Your task to perform on an android device: check data usage Image 0: 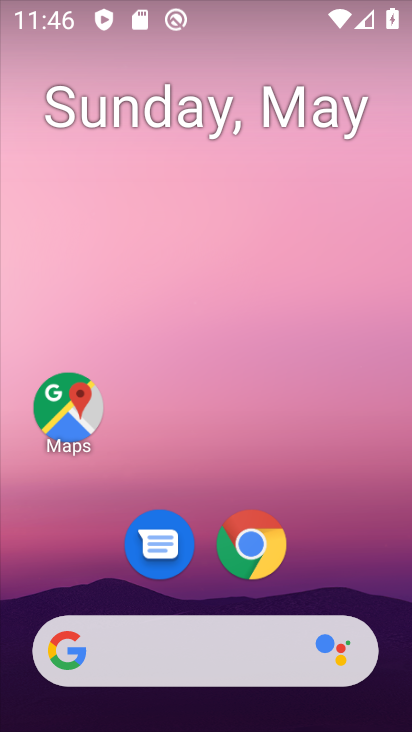
Step 0: drag from (332, 608) to (334, 15)
Your task to perform on an android device: check data usage Image 1: 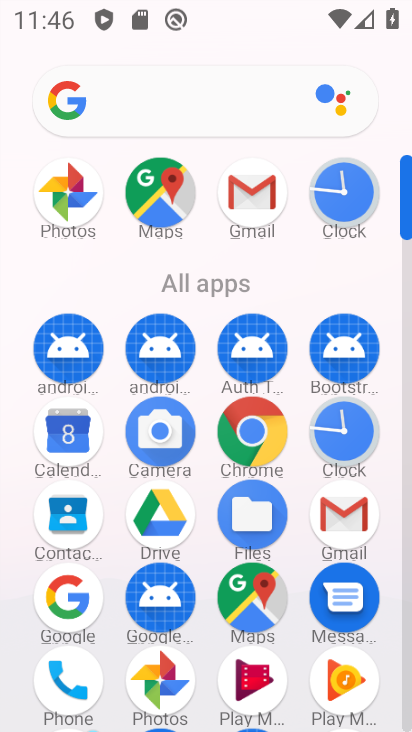
Step 1: drag from (213, 635) to (199, 249)
Your task to perform on an android device: check data usage Image 2: 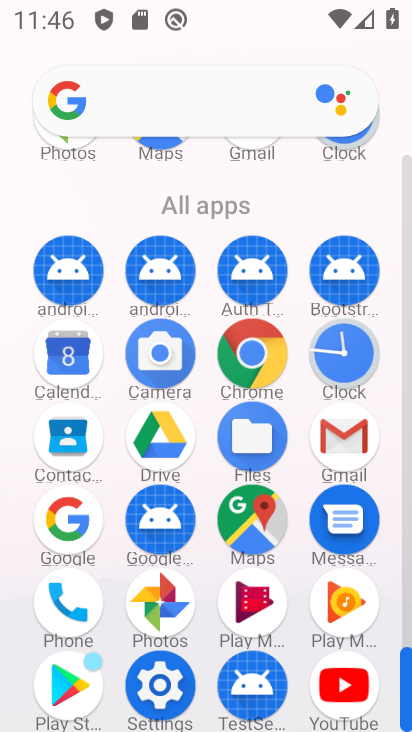
Step 2: click (156, 692)
Your task to perform on an android device: check data usage Image 3: 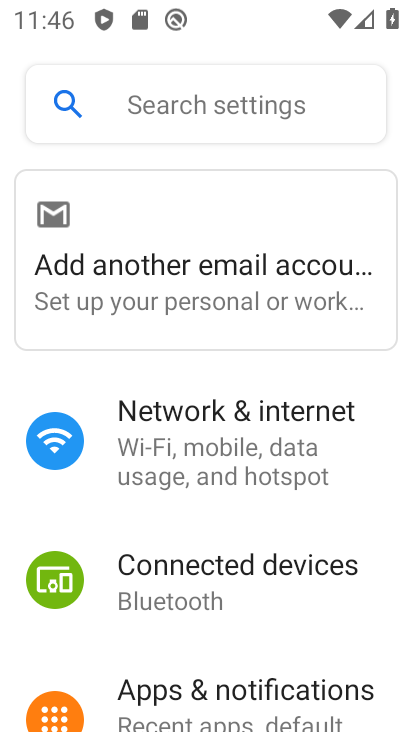
Step 3: click (256, 434)
Your task to perform on an android device: check data usage Image 4: 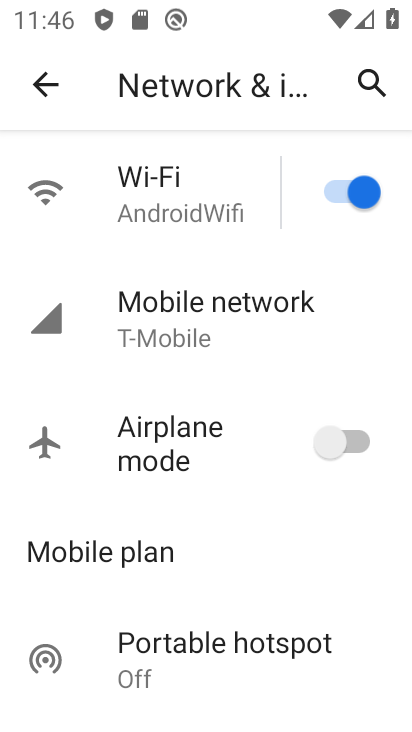
Step 4: click (209, 320)
Your task to perform on an android device: check data usage Image 5: 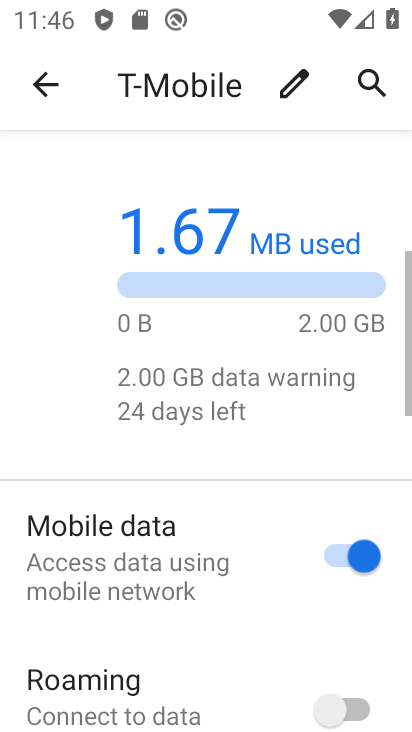
Step 5: drag from (205, 623) to (232, 123)
Your task to perform on an android device: check data usage Image 6: 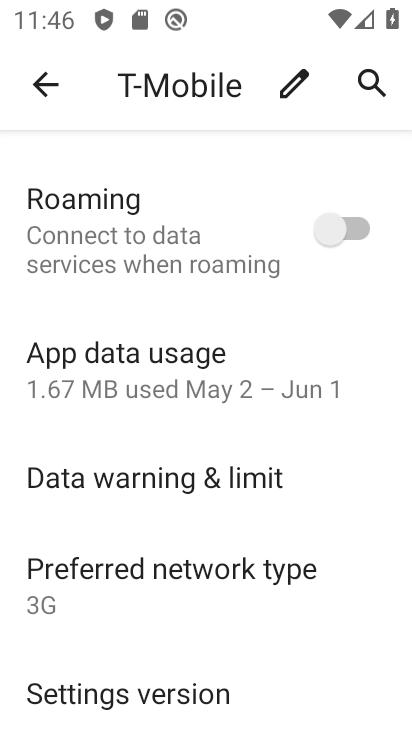
Step 6: click (206, 376)
Your task to perform on an android device: check data usage Image 7: 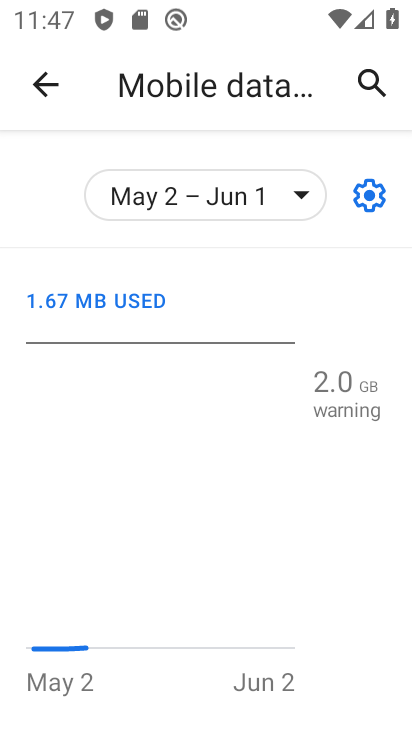
Step 7: task complete